Your task to perform on an android device: turn off notifications in google photos Image 0: 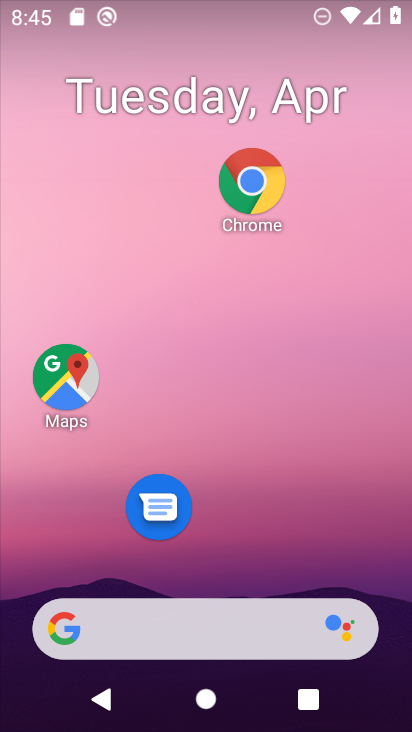
Step 0: drag from (203, 574) to (188, 163)
Your task to perform on an android device: turn off notifications in google photos Image 1: 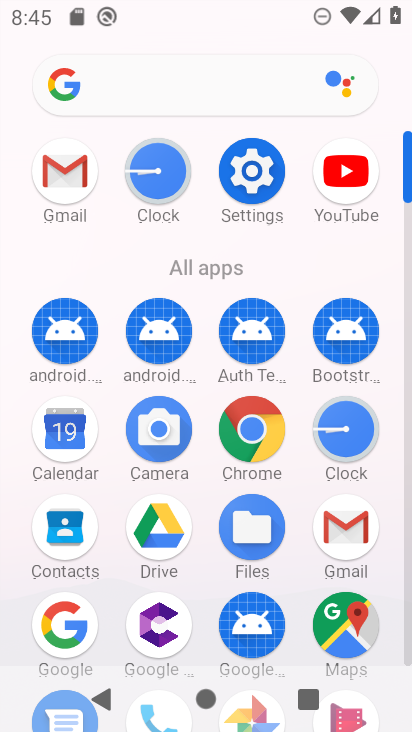
Step 1: drag from (113, 583) to (147, 281)
Your task to perform on an android device: turn off notifications in google photos Image 2: 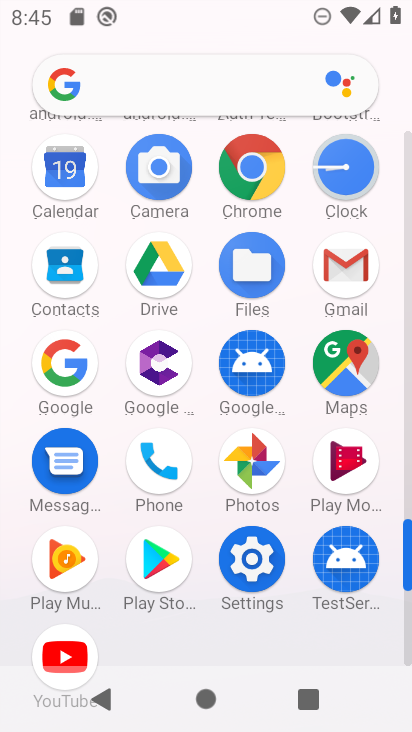
Step 2: click (257, 455)
Your task to perform on an android device: turn off notifications in google photos Image 3: 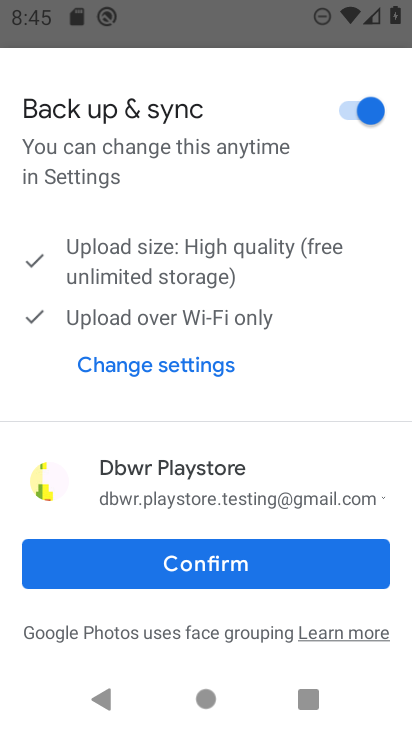
Step 3: click (272, 556)
Your task to perform on an android device: turn off notifications in google photos Image 4: 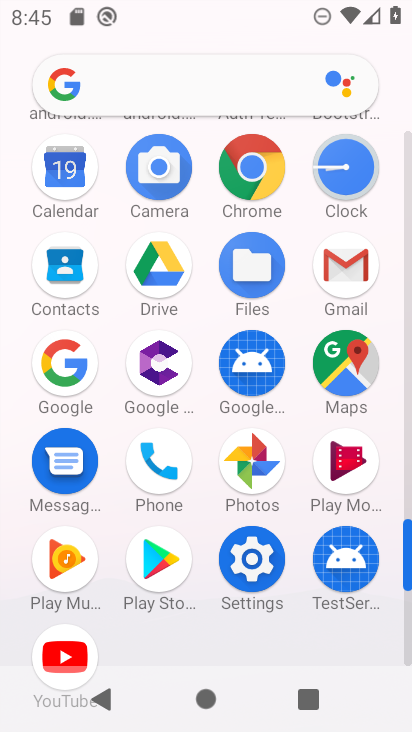
Step 4: click (268, 451)
Your task to perform on an android device: turn off notifications in google photos Image 5: 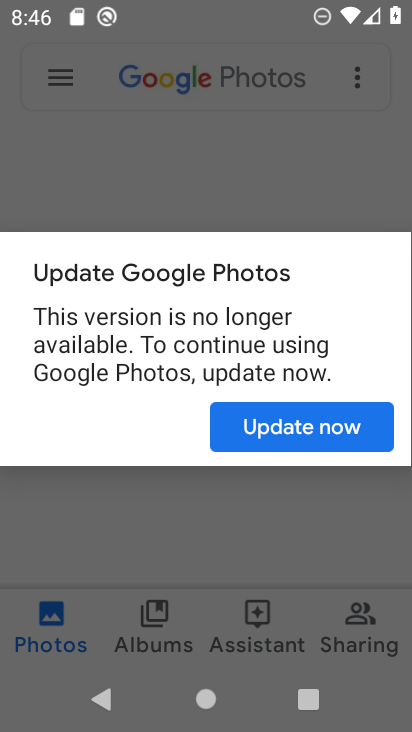
Step 5: click (235, 412)
Your task to perform on an android device: turn off notifications in google photos Image 6: 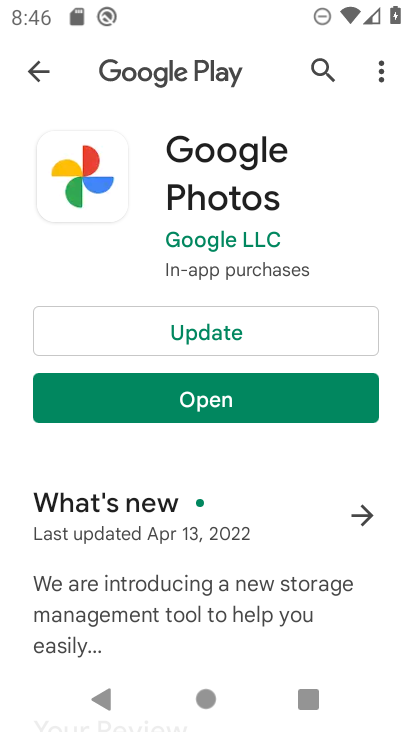
Step 6: click (204, 383)
Your task to perform on an android device: turn off notifications in google photos Image 7: 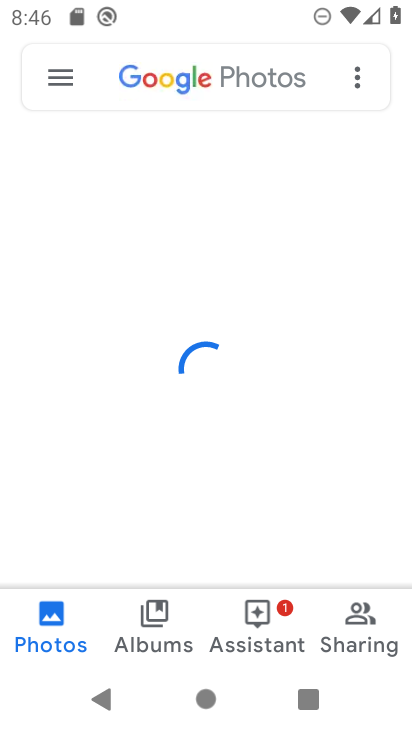
Step 7: click (56, 75)
Your task to perform on an android device: turn off notifications in google photos Image 8: 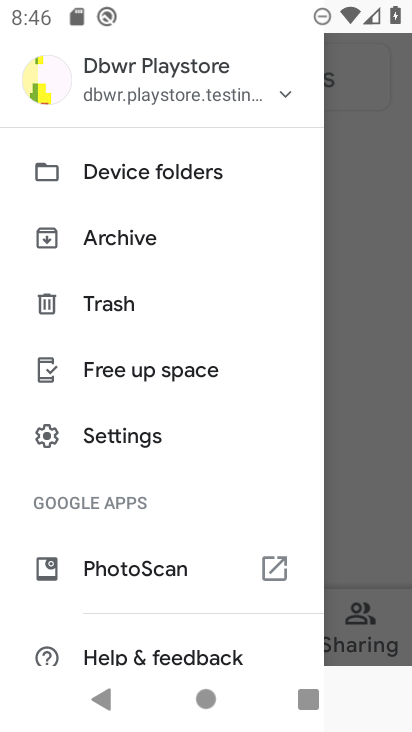
Step 8: click (115, 427)
Your task to perform on an android device: turn off notifications in google photos Image 9: 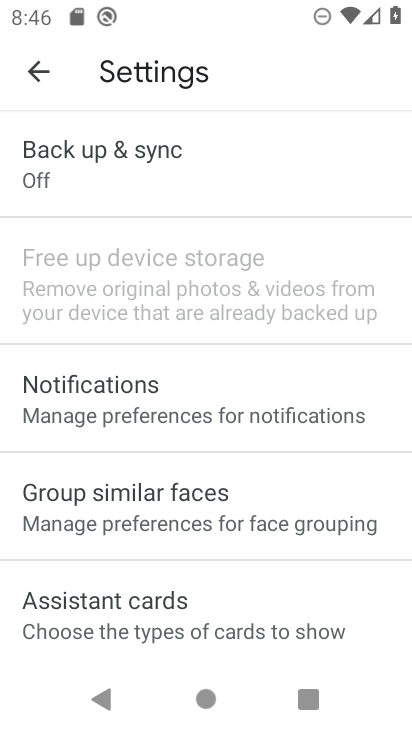
Step 9: click (150, 409)
Your task to perform on an android device: turn off notifications in google photos Image 10: 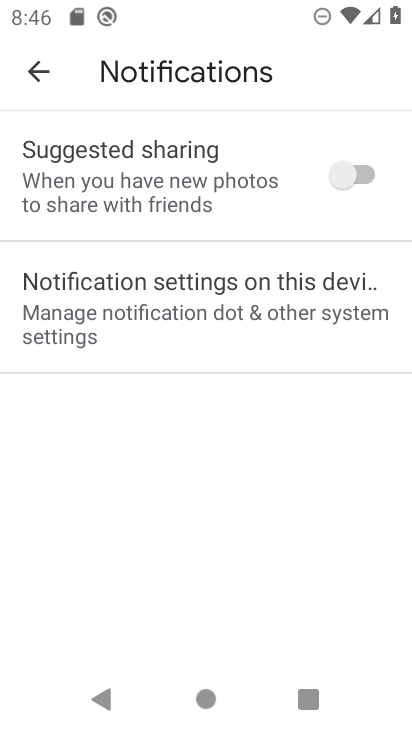
Step 10: click (233, 322)
Your task to perform on an android device: turn off notifications in google photos Image 11: 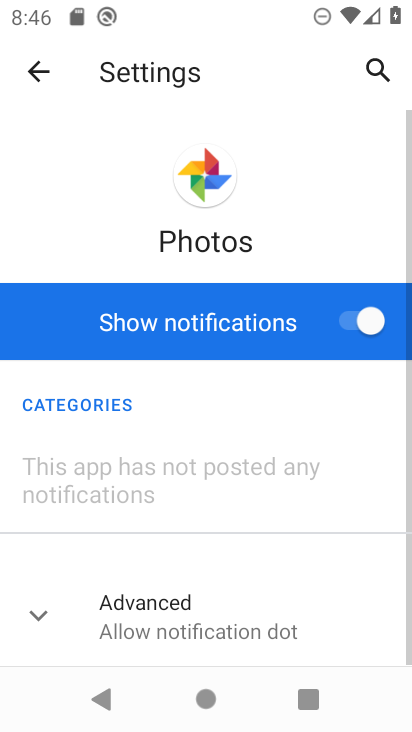
Step 11: click (343, 324)
Your task to perform on an android device: turn off notifications in google photos Image 12: 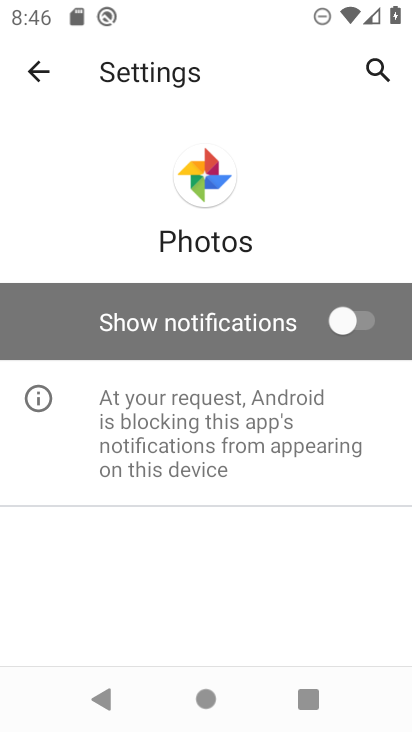
Step 12: task complete